Your task to perform on an android device: turn on airplane mode Image 0: 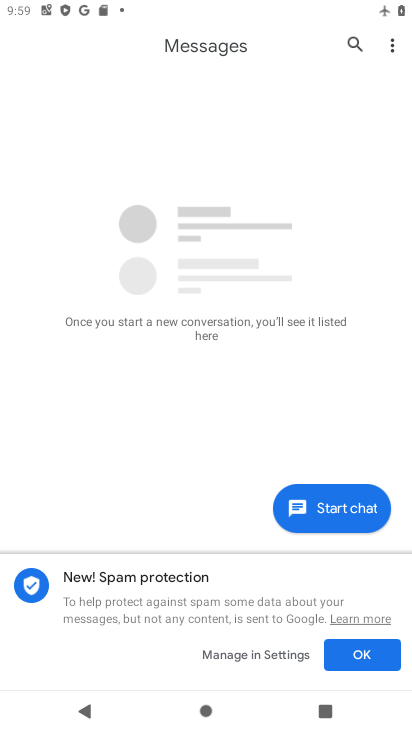
Step 0: press home button
Your task to perform on an android device: turn on airplane mode Image 1: 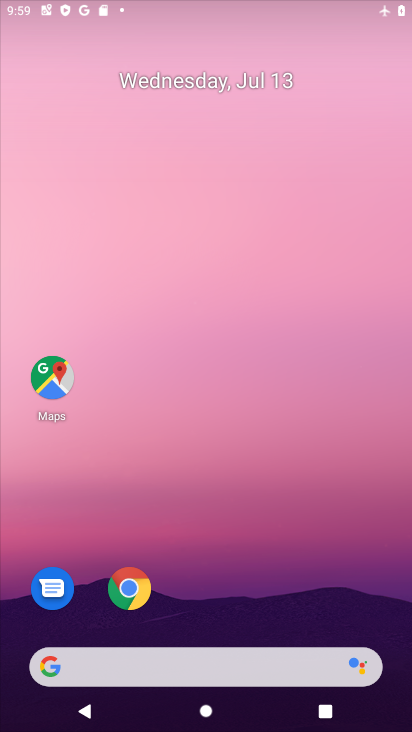
Step 1: drag from (242, 605) to (296, 128)
Your task to perform on an android device: turn on airplane mode Image 2: 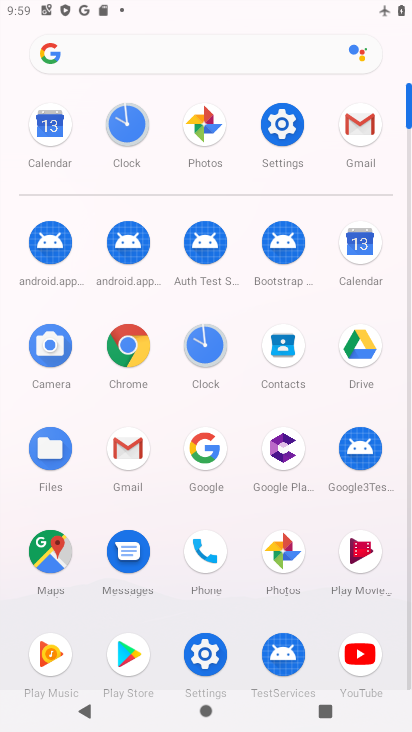
Step 2: click (276, 125)
Your task to perform on an android device: turn on airplane mode Image 3: 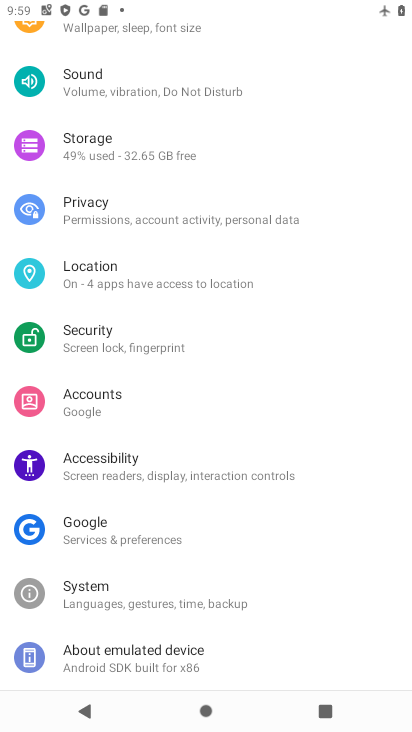
Step 3: drag from (167, 80) to (208, 565)
Your task to perform on an android device: turn on airplane mode Image 4: 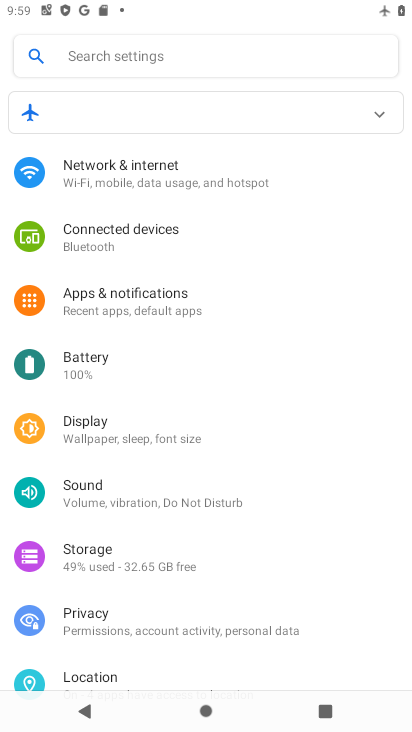
Step 4: click (120, 173)
Your task to perform on an android device: turn on airplane mode Image 5: 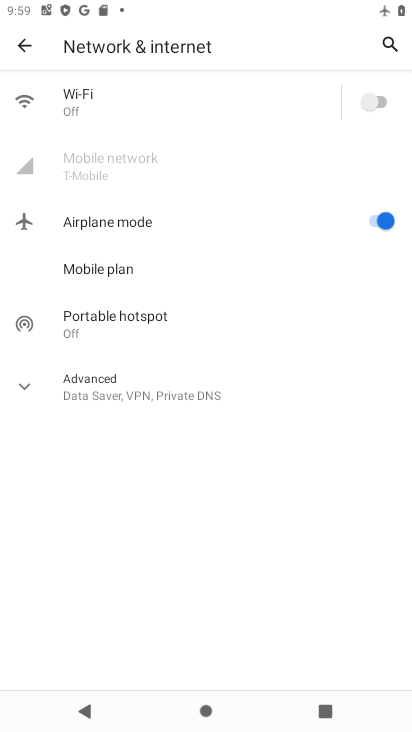
Step 5: task complete